Your task to perform on an android device: turn pop-ups on in chrome Image 0: 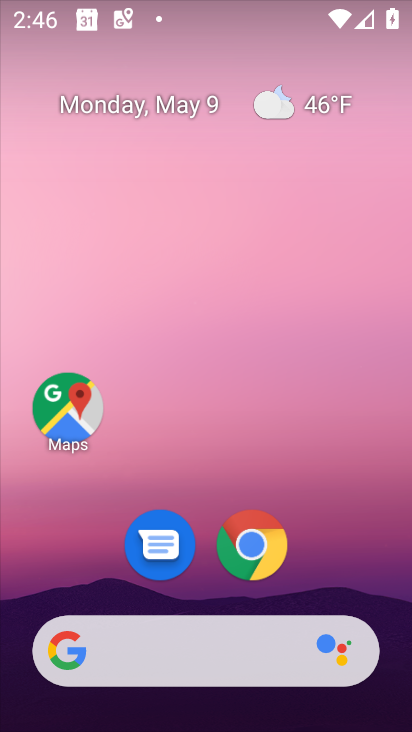
Step 0: click (264, 538)
Your task to perform on an android device: turn pop-ups on in chrome Image 1: 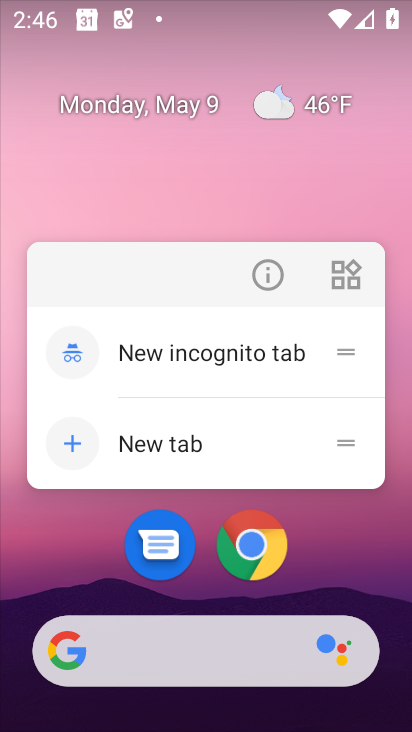
Step 1: click (271, 546)
Your task to perform on an android device: turn pop-ups on in chrome Image 2: 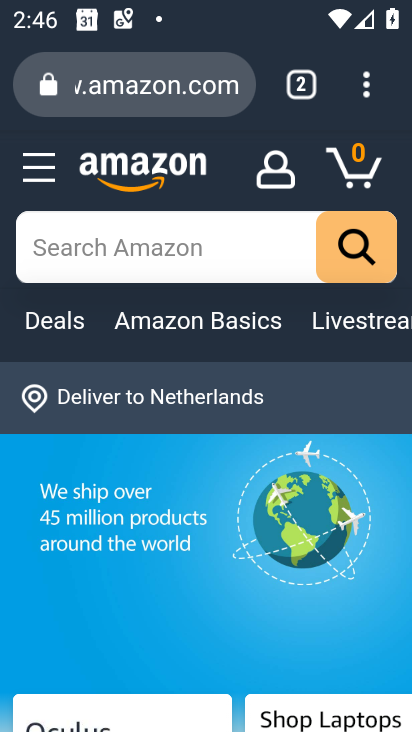
Step 2: drag from (373, 93) to (114, 600)
Your task to perform on an android device: turn pop-ups on in chrome Image 3: 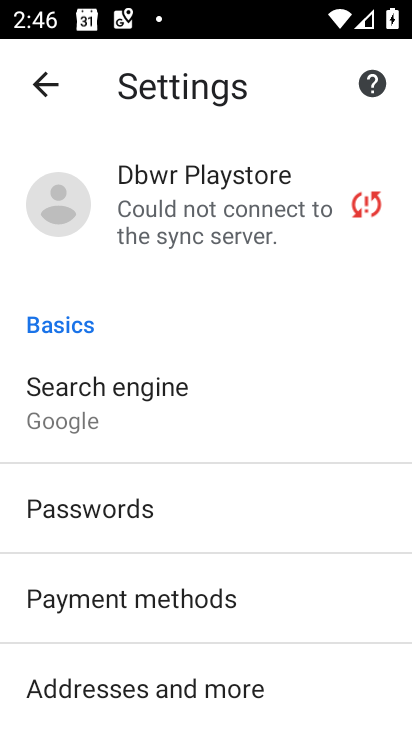
Step 3: drag from (223, 541) to (250, 368)
Your task to perform on an android device: turn pop-ups on in chrome Image 4: 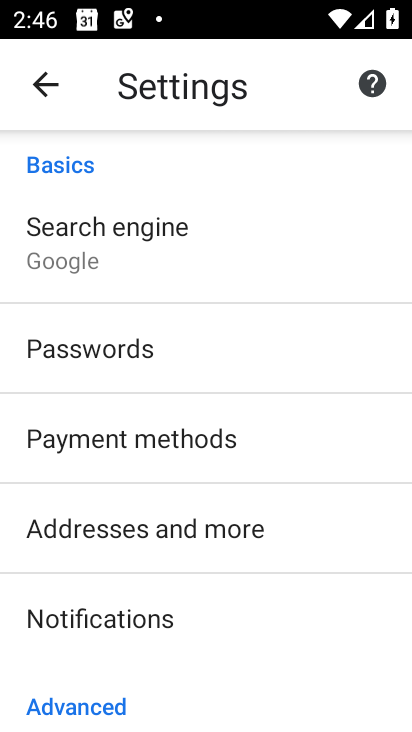
Step 4: drag from (248, 614) to (243, 374)
Your task to perform on an android device: turn pop-ups on in chrome Image 5: 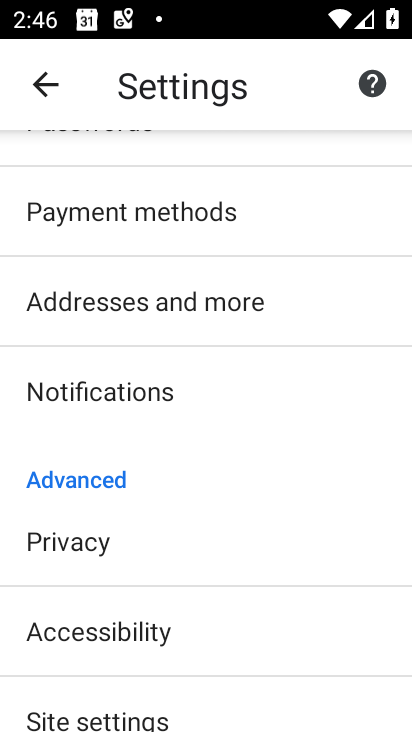
Step 5: drag from (234, 672) to (241, 382)
Your task to perform on an android device: turn pop-ups on in chrome Image 6: 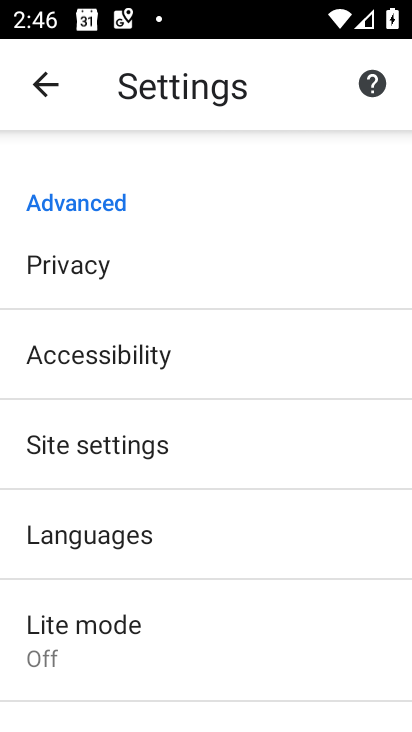
Step 6: click (222, 437)
Your task to perform on an android device: turn pop-ups on in chrome Image 7: 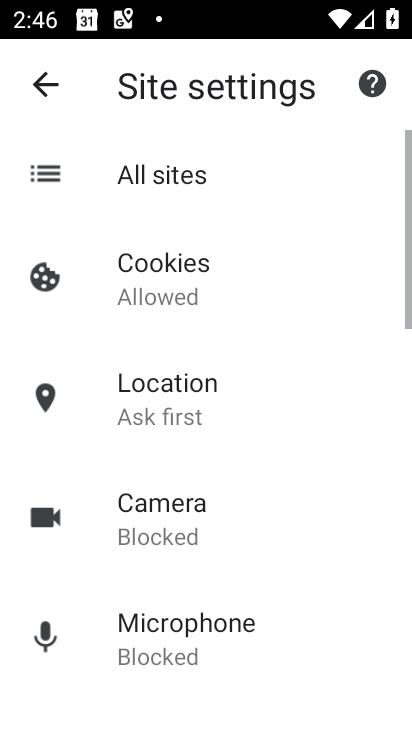
Step 7: drag from (254, 658) to (286, 348)
Your task to perform on an android device: turn pop-ups on in chrome Image 8: 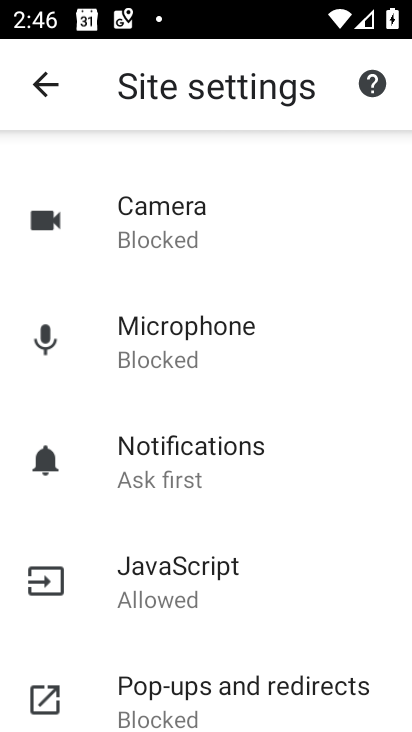
Step 8: click (241, 687)
Your task to perform on an android device: turn pop-ups on in chrome Image 9: 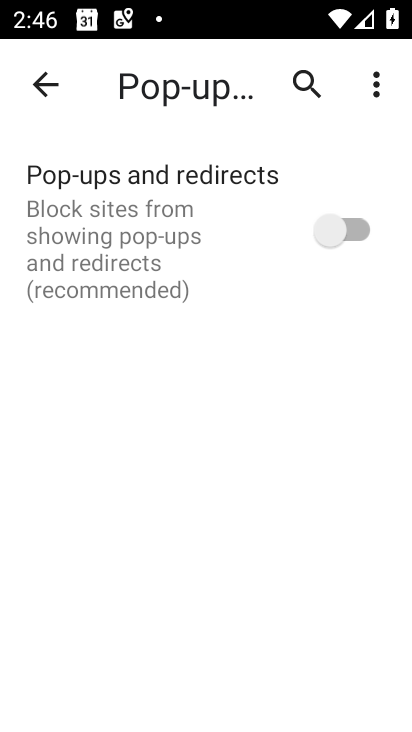
Step 9: click (364, 217)
Your task to perform on an android device: turn pop-ups on in chrome Image 10: 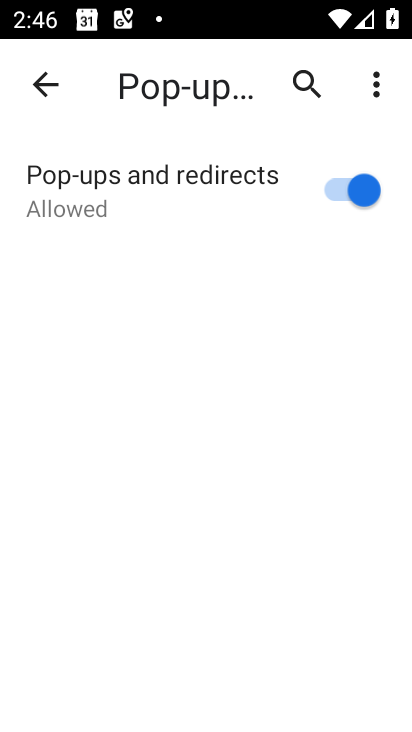
Step 10: task complete